Your task to perform on an android device: Open the calendar app, open the side menu, and click the "Day" option Image 0: 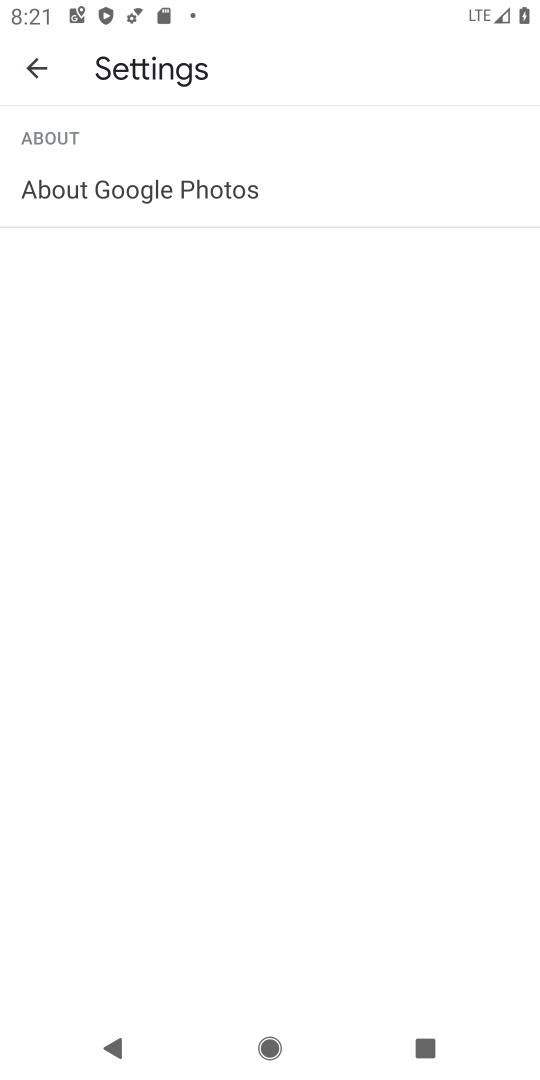
Step 0: press home button
Your task to perform on an android device: Open the calendar app, open the side menu, and click the "Day" option Image 1: 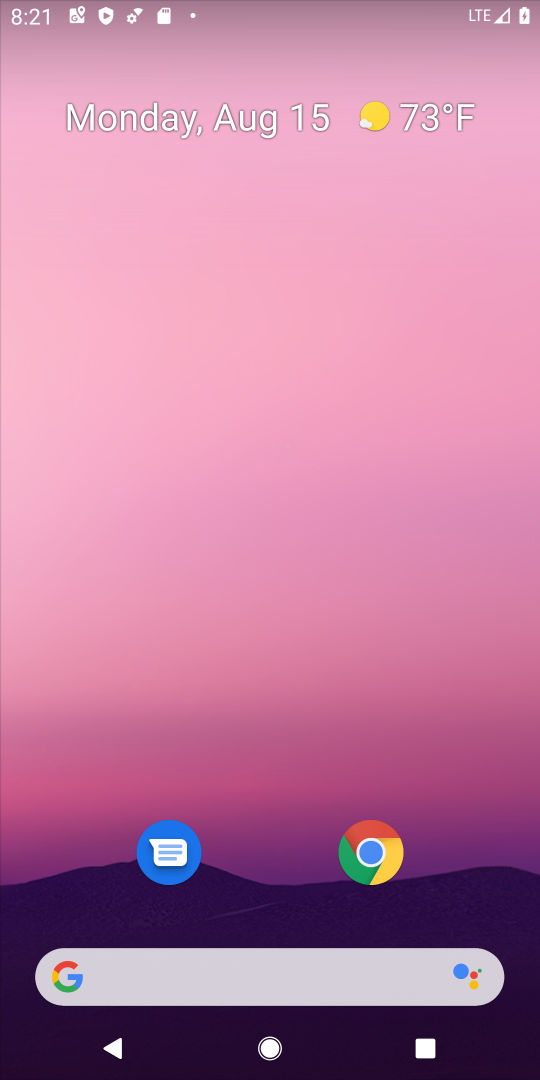
Step 1: drag from (227, 983) to (269, 285)
Your task to perform on an android device: Open the calendar app, open the side menu, and click the "Day" option Image 2: 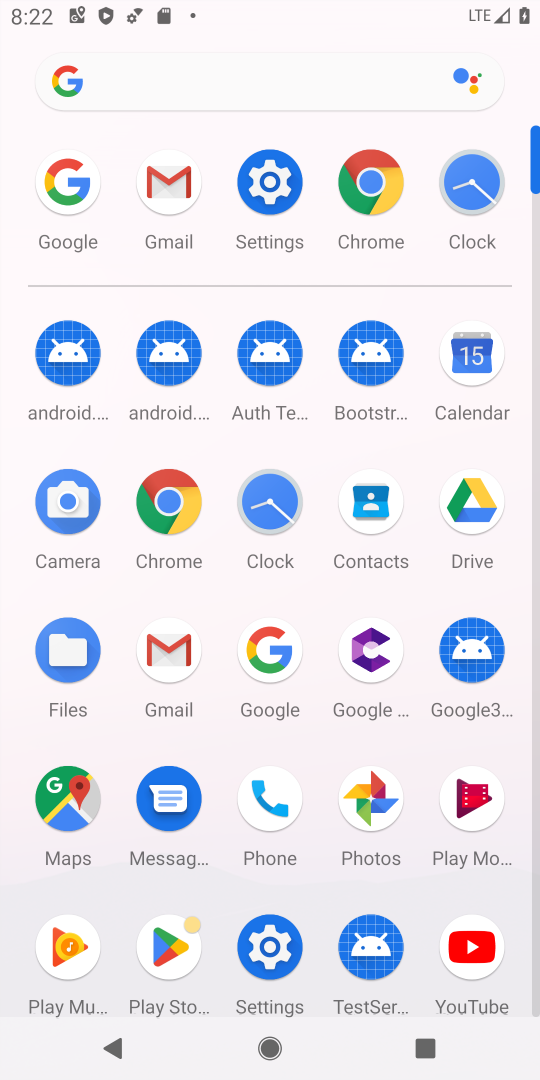
Step 2: click (471, 357)
Your task to perform on an android device: Open the calendar app, open the side menu, and click the "Day" option Image 3: 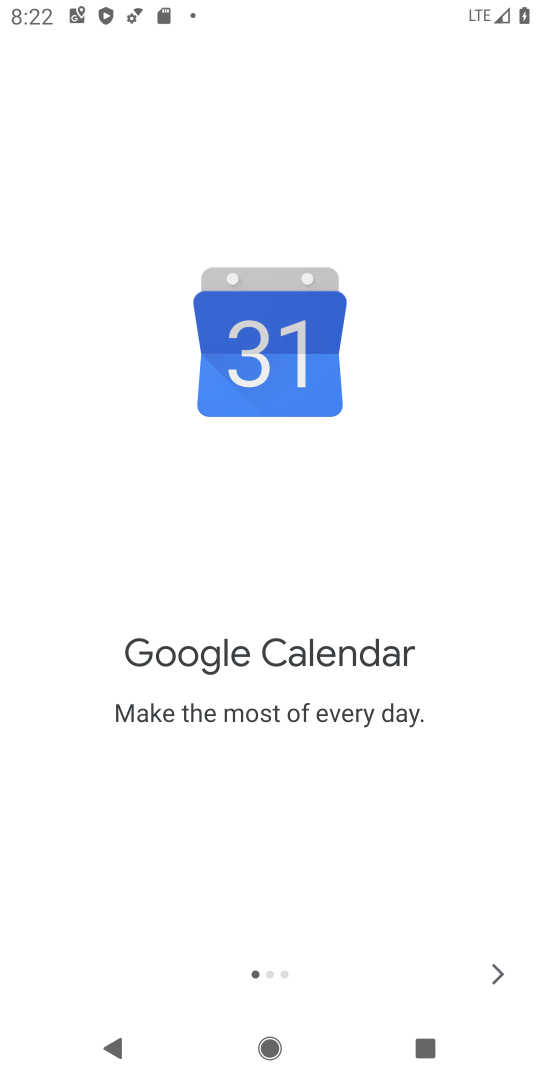
Step 3: click (495, 967)
Your task to perform on an android device: Open the calendar app, open the side menu, and click the "Day" option Image 4: 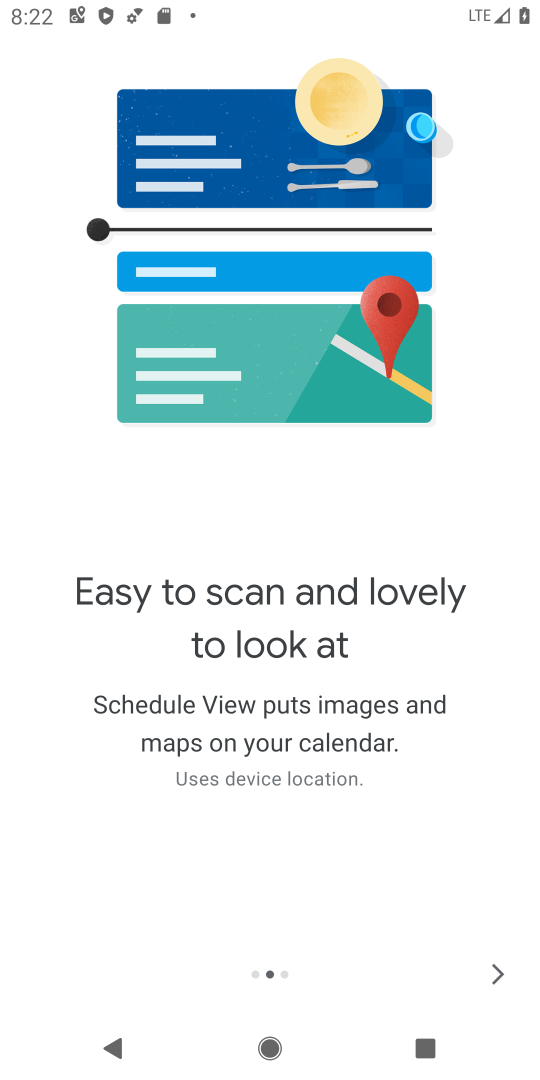
Step 4: click (495, 967)
Your task to perform on an android device: Open the calendar app, open the side menu, and click the "Day" option Image 5: 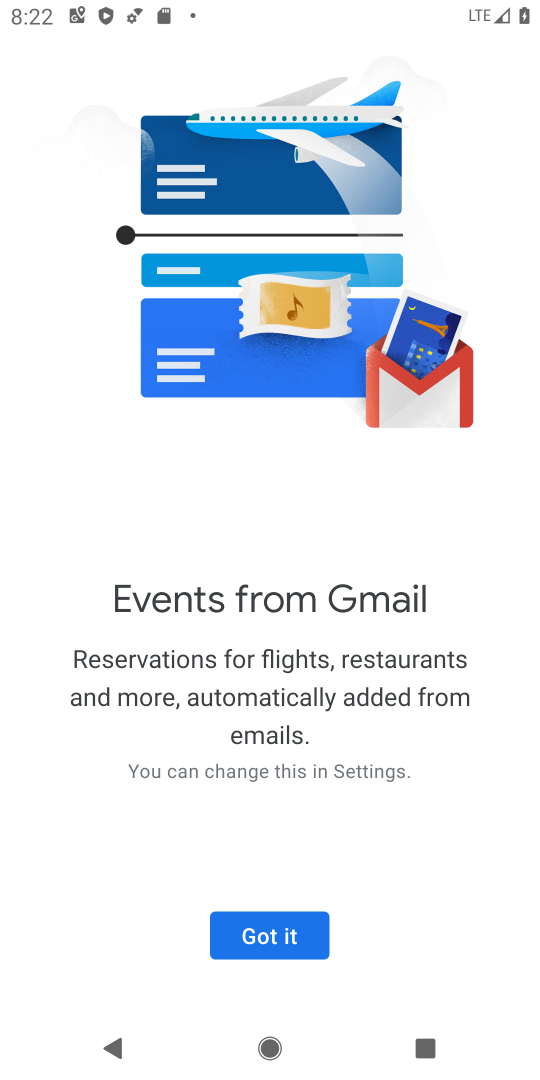
Step 5: click (275, 942)
Your task to perform on an android device: Open the calendar app, open the side menu, and click the "Day" option Image 6: 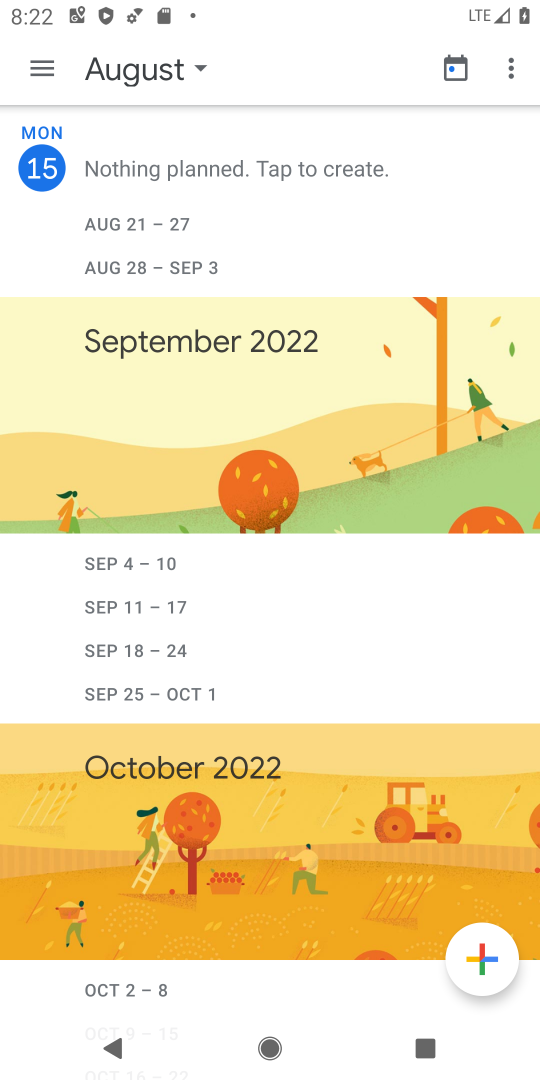
Step 6: click (44, 67)
Your task to perform on an android device: Open the calendar app, open the side menu, and click the "Day" option Image 7: 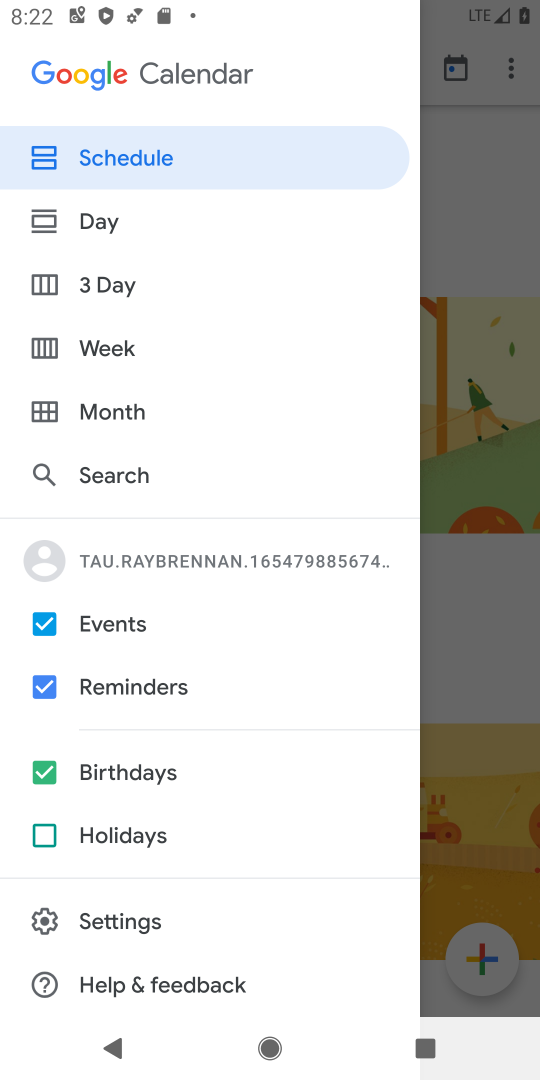
Step 7: click (84, 216)
Your task to perform on an android device: Open the calendar app, open the side menu, and click the "Day" option Image 8: 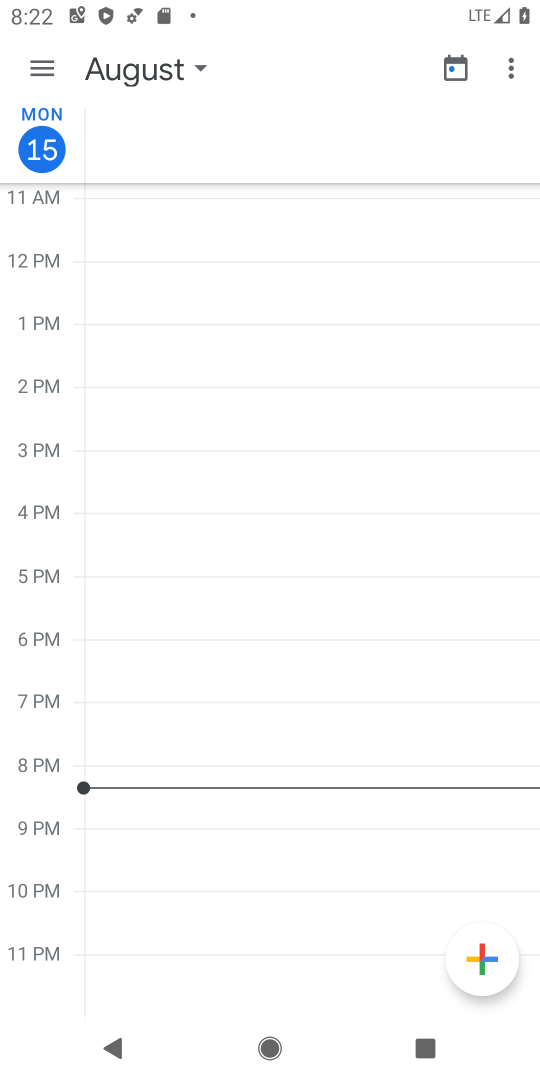
Step 8: task complete